Your task to perform on an android device: Open Amazon Image 0: 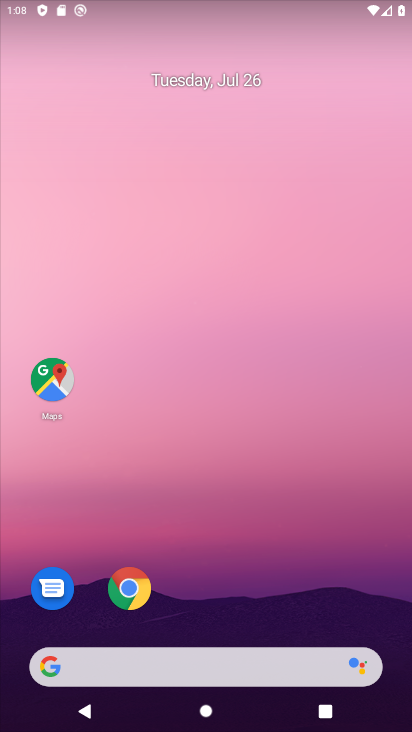
Step 0: click (140, 573)
Your task to perform on an android device: Open Amazon Image 1: 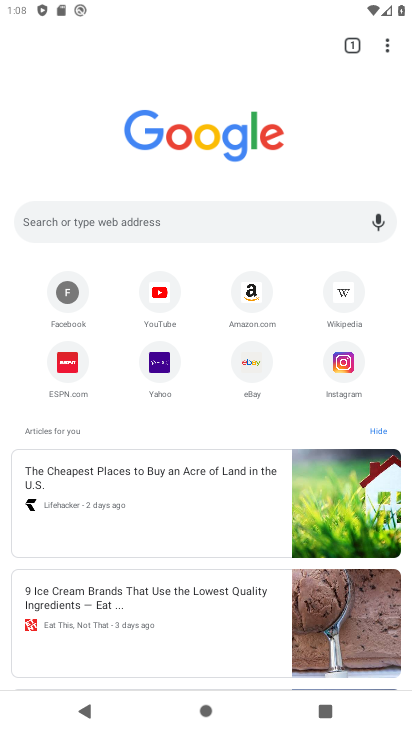
Step 1: click (259, 298)
Your task to perform on an android device: Open Amazon Image 2: 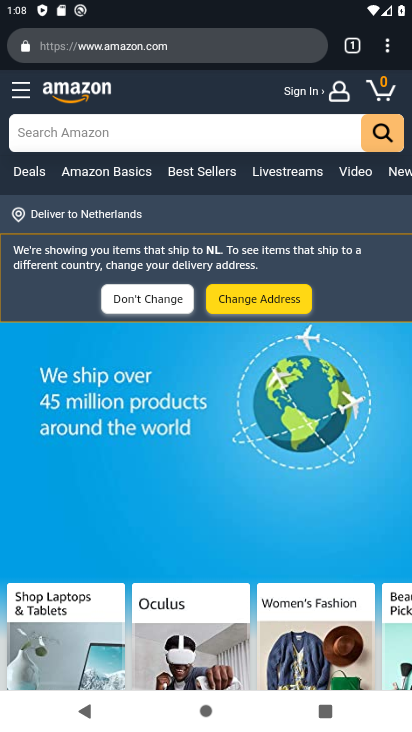
Step 2: task complete